Your task to perform on an android device: Go to sound settings Image 0: 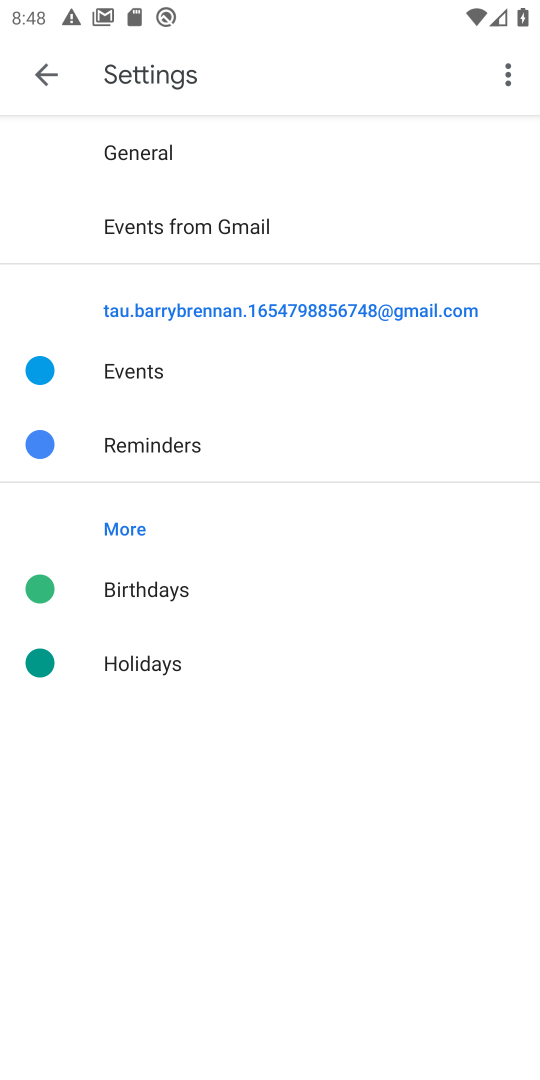
Step 0: press home button
Your task to perform on an android device: Go to sound settings Image 1: 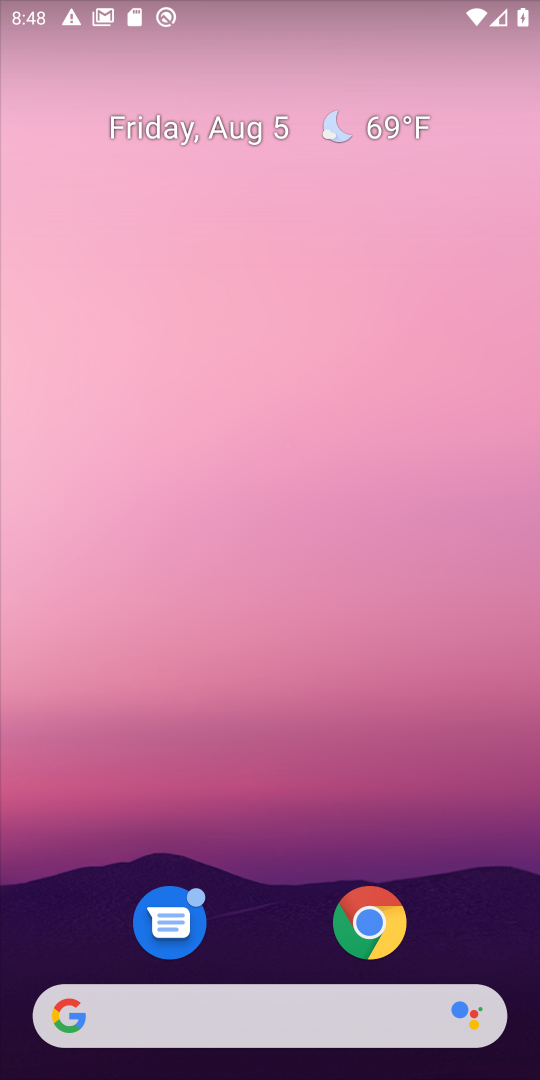
Step 1: drag from (269, 949) to (410, 106)
Your task to perform on an android device: Go to sound settings Image 2: 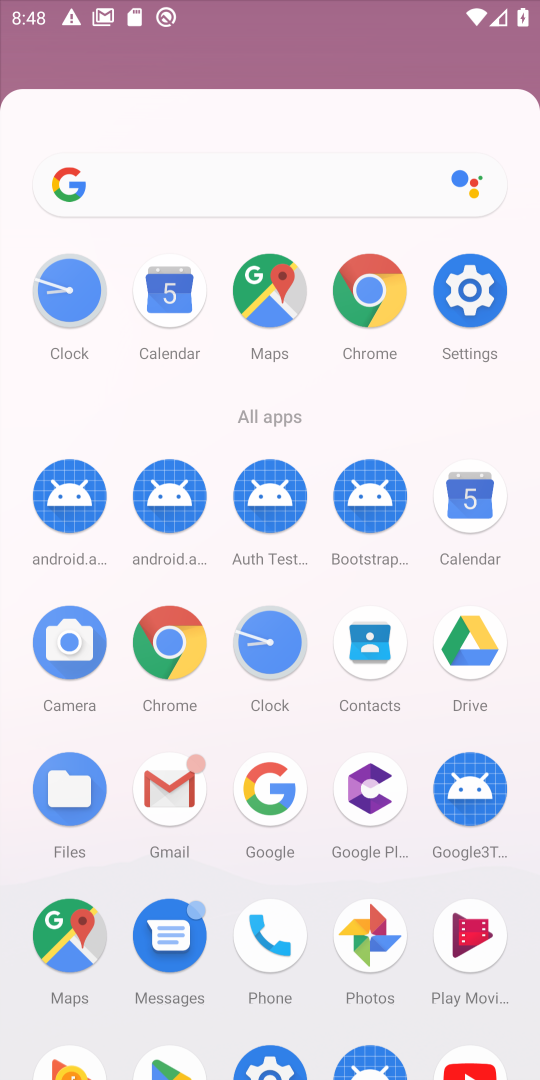
Step 2: click (467, 199)
Your task to perform on an android device: Go to sound settings Image 3: 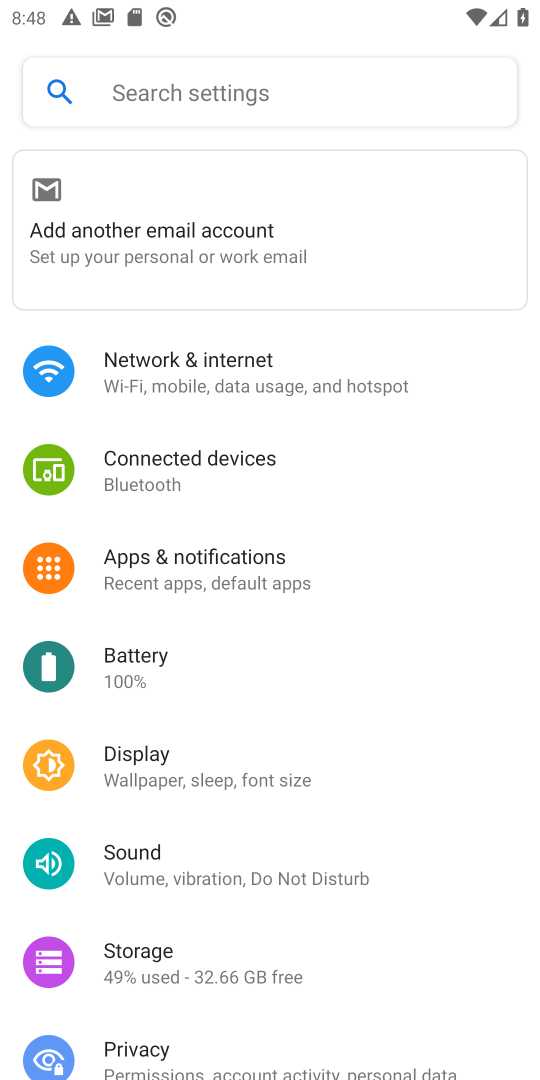
Step 3: click (218, 880)
Your task to perform on an android device: Go to sound settings Image 4: 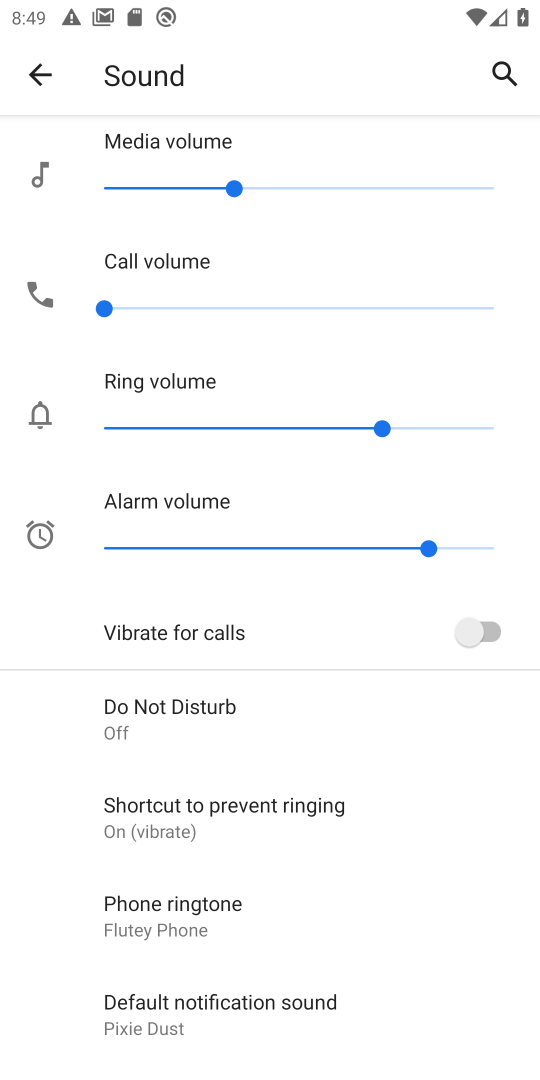
Step 4: task complete